Your task to perform on an android device: install app "AliExpress" Image 0: 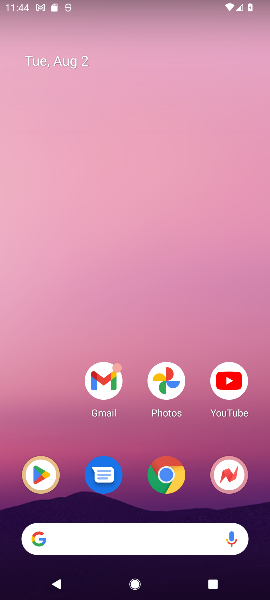
Step 0: click (37, 475)
Your task to perform on an android device: install app "AliExpress" Image 1: 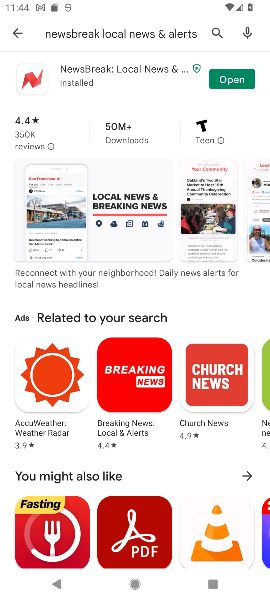
Step 1: click (218, 32)
Your task to perform on an android device: install app "AliExpress" Image 2: 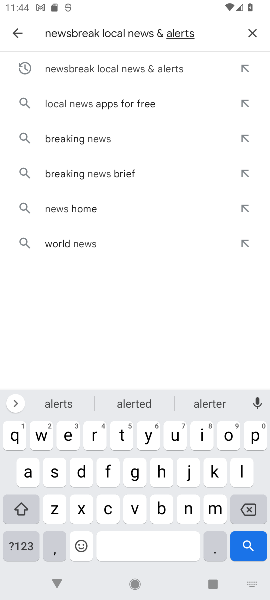
Step 2: click (254, 33)
Your task to perform on an android device: install app "AliExpress" Image 3: 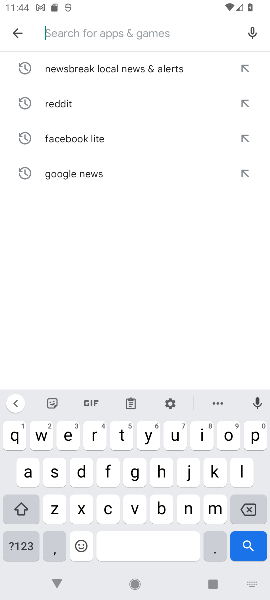
Step 3: drag from (120, 588) to (207, 599)
Your task to perform on an android device: install app "AliExpress" Image 4: 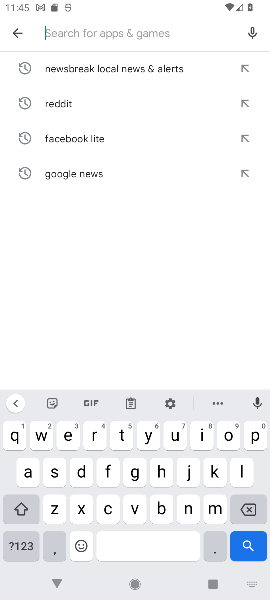
Step 4: type "AliExpress"
Your task to perform on an android device: install app "AliExpress" Image 5: 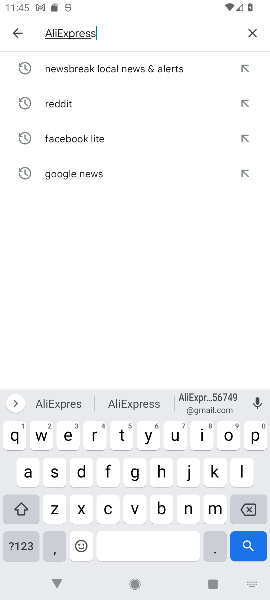
Step 5: type ""
Your task to perform on an android device: install app "AliExpress" Image 6: 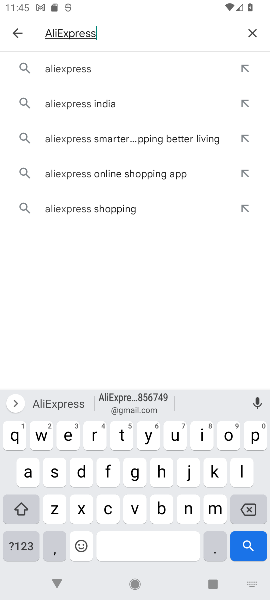
Step 6: drag from (207, 599) to (268, 113)
Your task to perform on an android device: install app "AliExpress" Image 7: 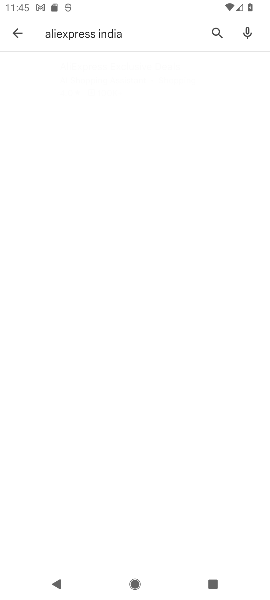
Step 7: click (59, 61)
Your task to perform on an android device: install app "AliExpress" Image 8: 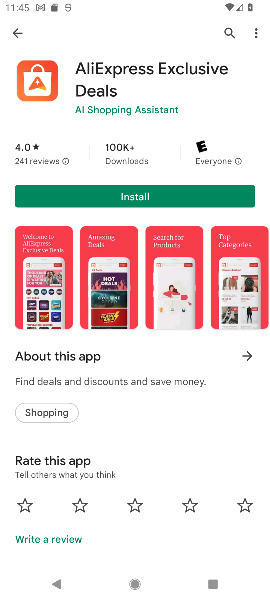
Step 8: click (20, 29)
Your task to perform on an android device: install app "AliExpress" Image 9: 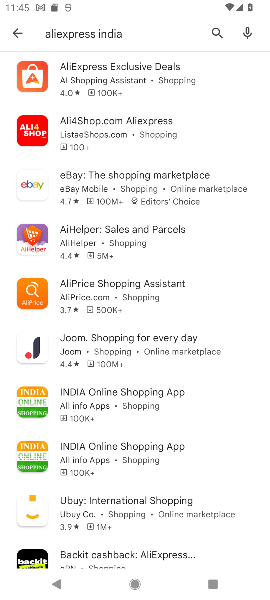
Step 9: click (95, 65)
Your task to perform on an android device: install app "AliExpress" Image 10: 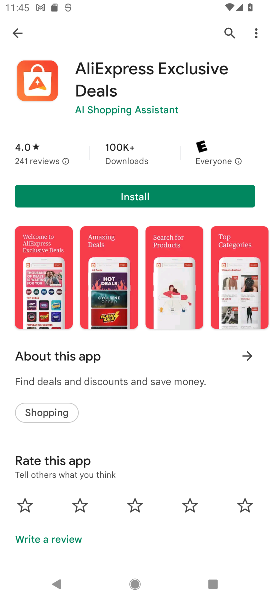
Step 10: click (130, 198)
Your task to perform on an android device: install app "AliExpress" Image 11: 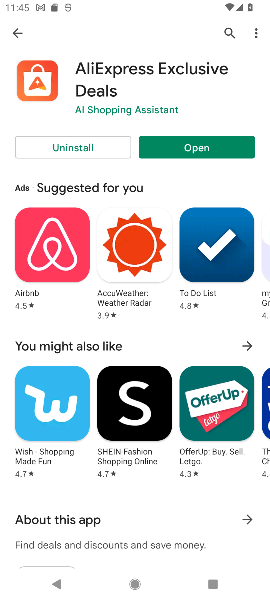
Step 11: task complete